Your task to perform on an android device: Open maps Image 0: 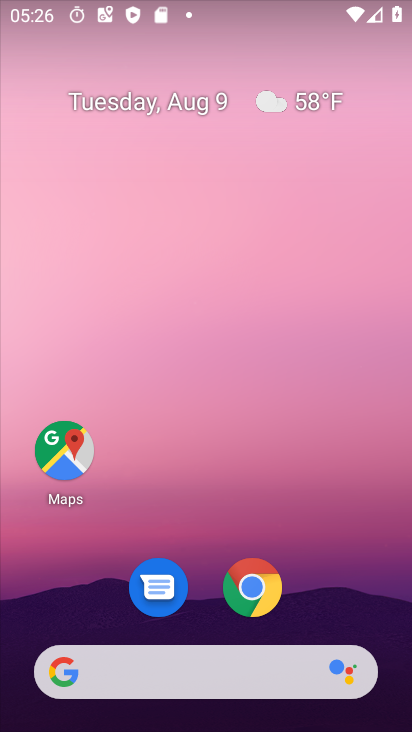
Step 0: click (48, 446)
Your task to perform on an android device: Open maps Image 1: 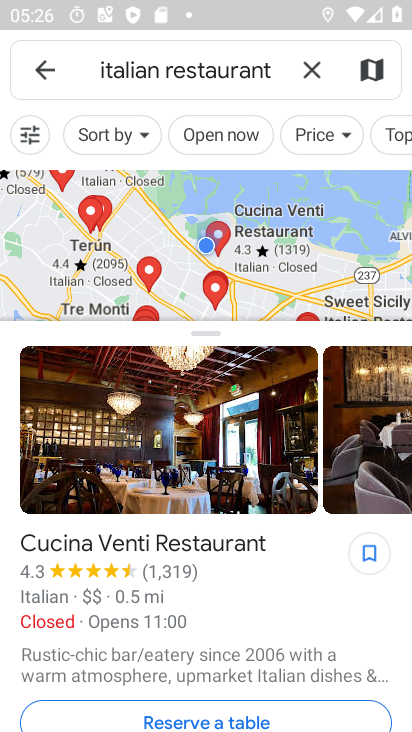
Step 1: task complete